Your task to perform on an android device: Go to Yahoo.com Image 0: 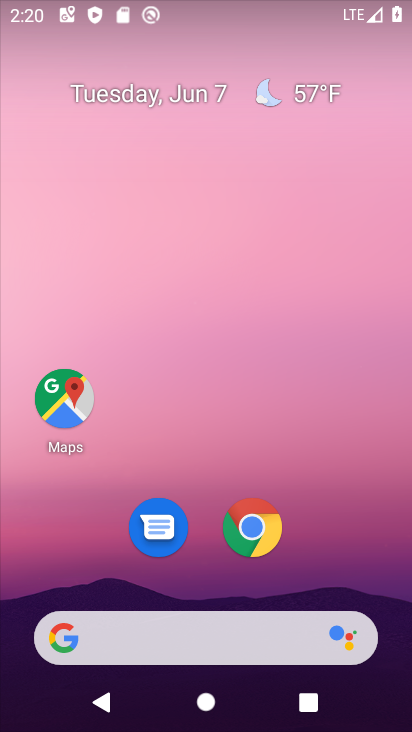
Step 0: click (252, 530)
Your task to perform on an android device: Go to Yahoo.com Image 1: 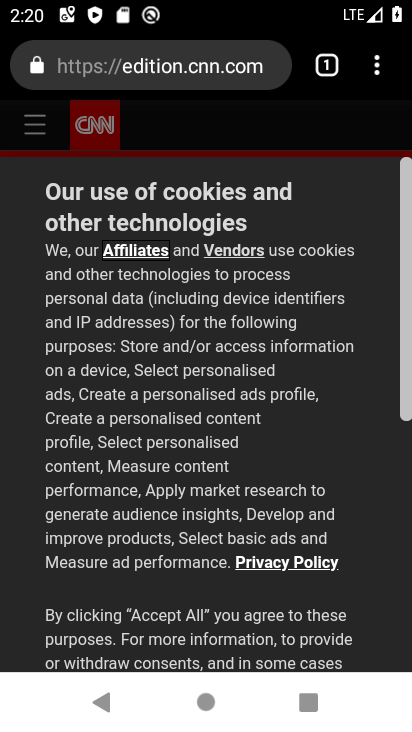
Step 1: click (329, 69)
Your task to perform on an android device: Go to Yahoo.com Image 2: 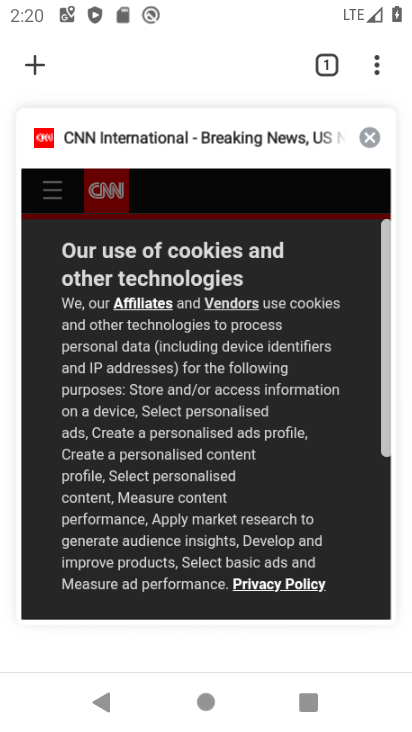
Step 2: click (34, 66)
Your task to perform on an android device: Go to Yahoo.com Image 3: 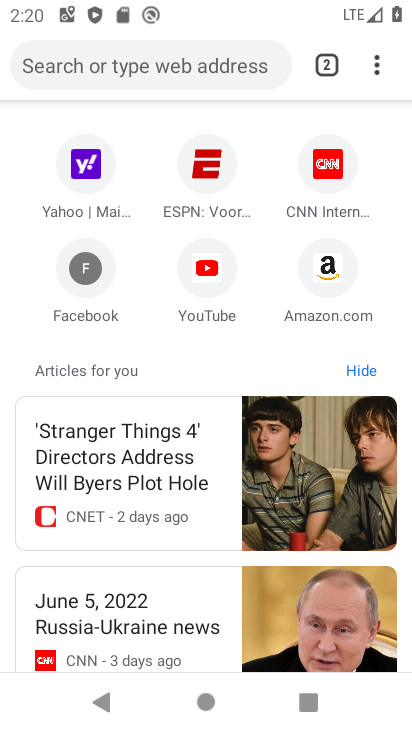
Step 3: click (86, 181)
Your task to perform on an android device: Go to Yahoo.com Image 4: 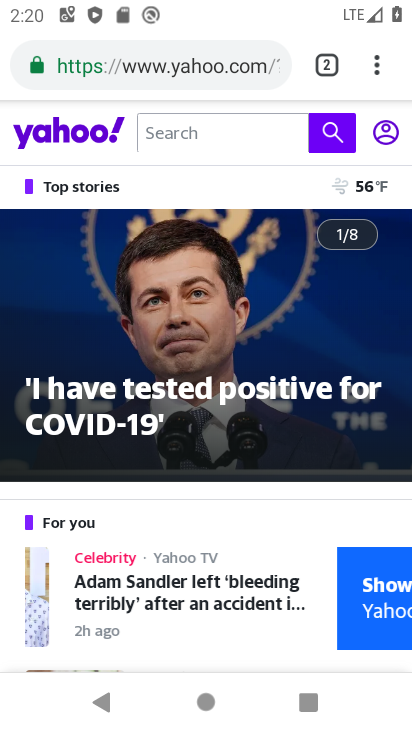
Step 4: task complete